Your task to perform on an android device: Open notification settings Image 0: 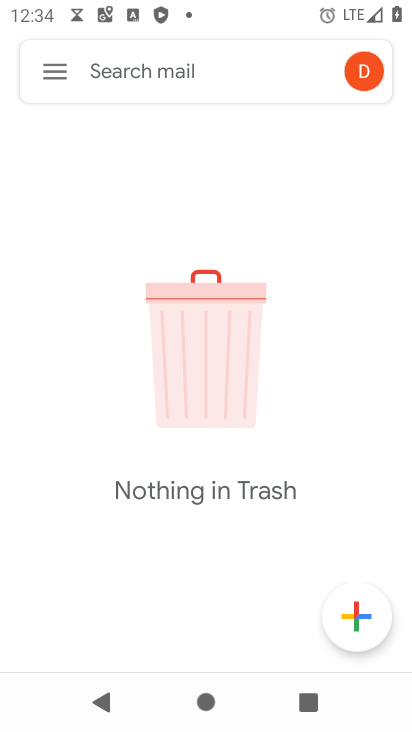
Step 0: press home button
Your task to perform on an android device: Open notification settings Image 1: 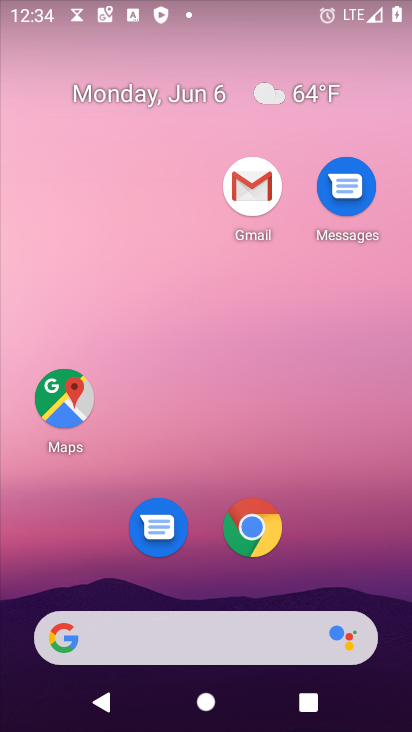
Step 1: drag from (268, 567) to (239, 59)
Your task to perform on an android device: Open notification settings Image 2: 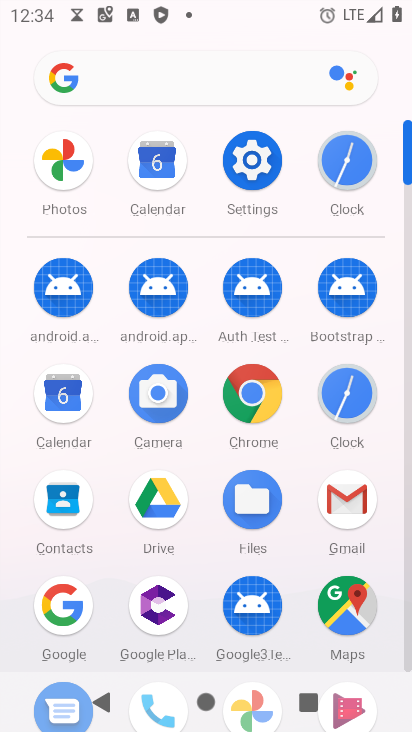
Step 2: click (258, 159)
Your task to perform on an android device: Open notification settings Image 3: 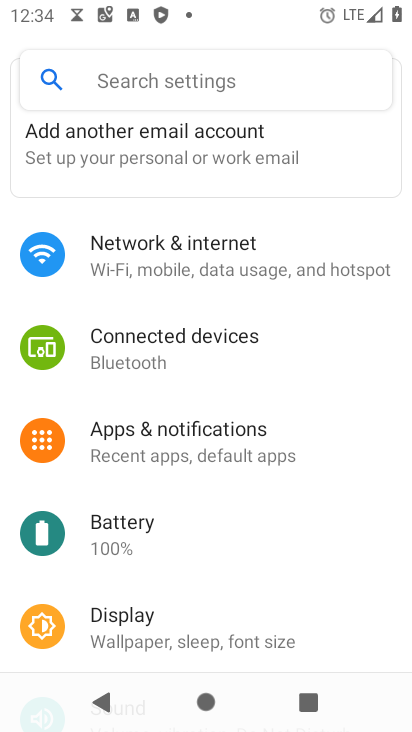
Step 3: click (179, 443)
Your task to perform on an android device: Open notification settings Image 4: 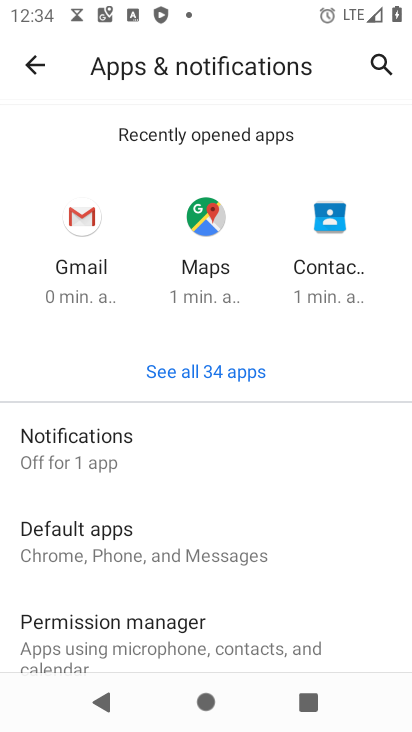
Step 4: task complete